Your task to perform on an android device: turn on bluetooth scan Image 0: 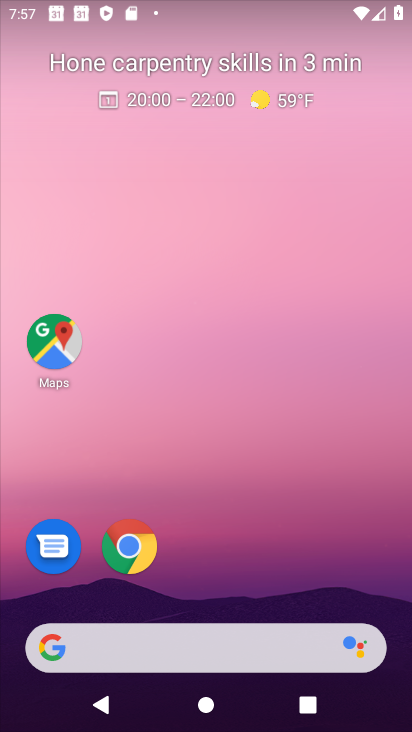
Step 0: drag from (380, 557) to (337, 169)
Your task to perform on an android device: turn on bluetooth scan Image 1: 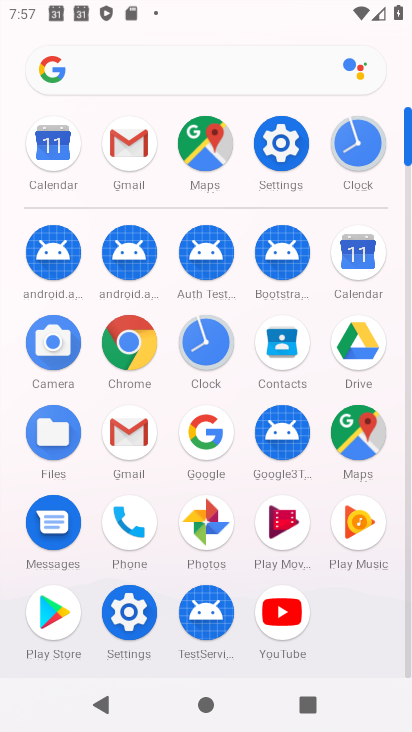
Step 1: click (134, 611)
Your task to perform on an android device: turn on bluetooth scan Image 2: 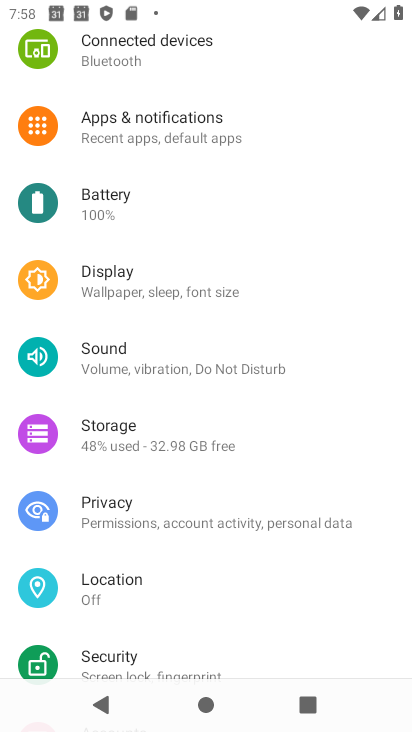
Step 2: click (164, 425)
Your task to perform on an android device: turn on bluetooth scan Image 3: 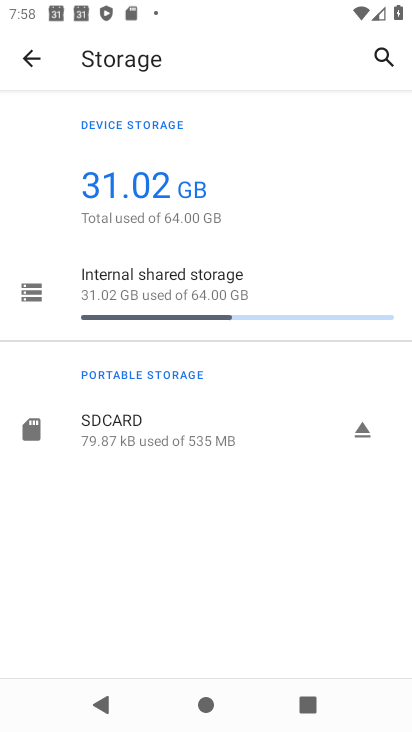
Step 3: click (36, 57)
Your task to perform on an android device: turn on bluetooth scan Image 4: 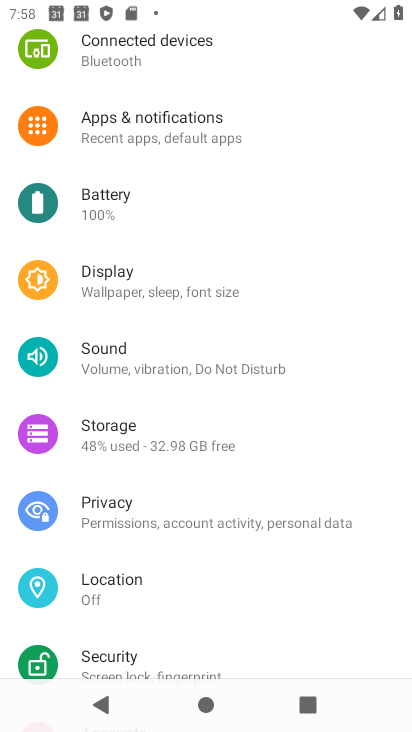
Step 4: click (180, 586)
Your task to perform on an android device: turn on bluetooth scan Image 5: 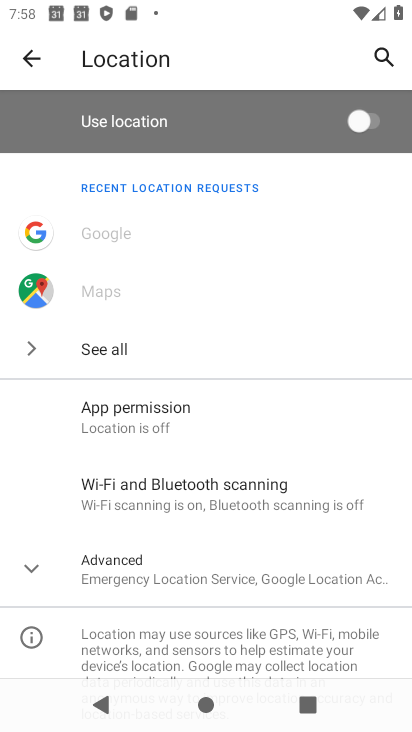
Step 5: click (224, 503)
Your task to perform on an android device: turn on bluetooth scan Image 6: 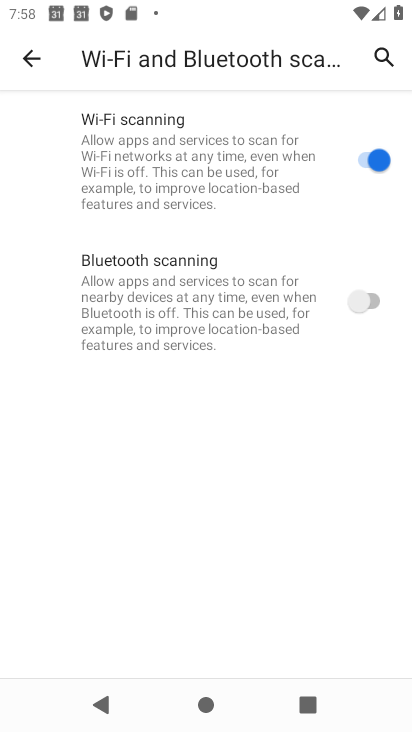
Step 6: click (379, 297)
Your task to perform on an android device: turn on bluetooth scan Image 7: 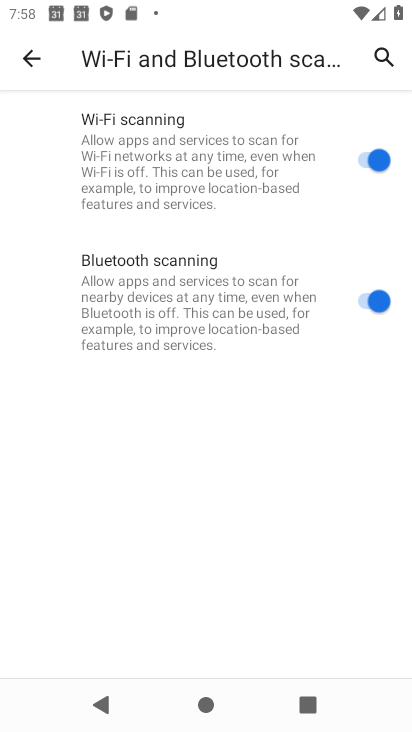
Step 7: task complete